Your task to perform on an android device: Open my contact list Image 0: 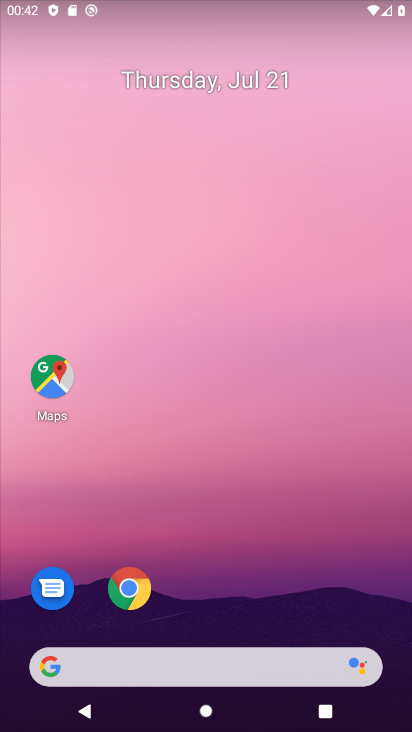
Step 0: drag from (268, 593) to (244, 243)
Your task to perform on an android device: Open my contact list Image 1: 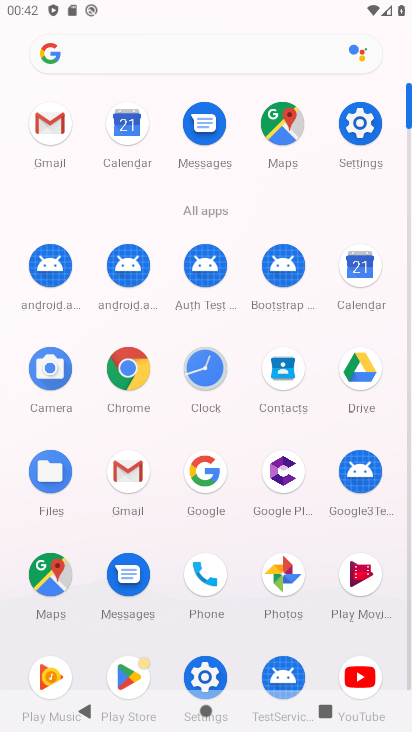
Step 1: click (281, 375)
Your task to perform on an android device: Open my contact list Image 2: 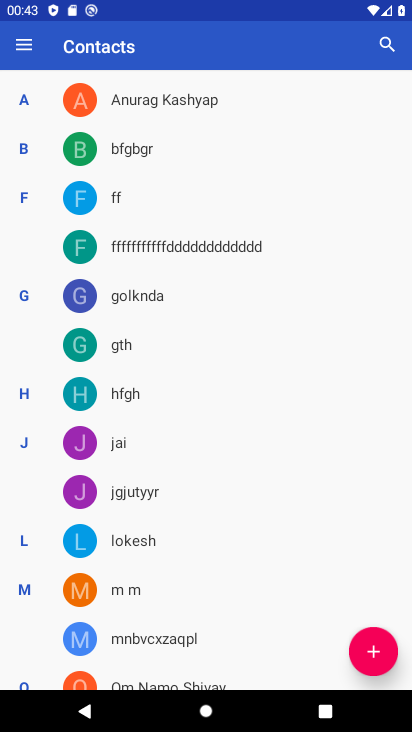
Step 2: task complete